Your task to perform on an android device: Open Google Chrome and click the shortcut for Amazon.com Image 0: 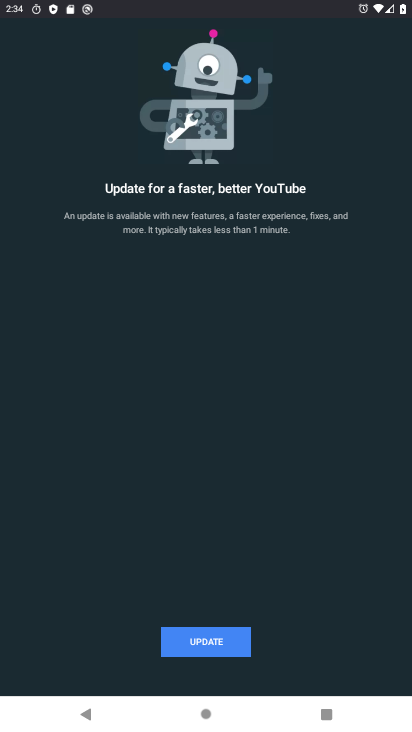
Step 0: press home button
Your task to perform on an android device: Open Google Chrome and click the shortcut for Amazon.com Image 1: 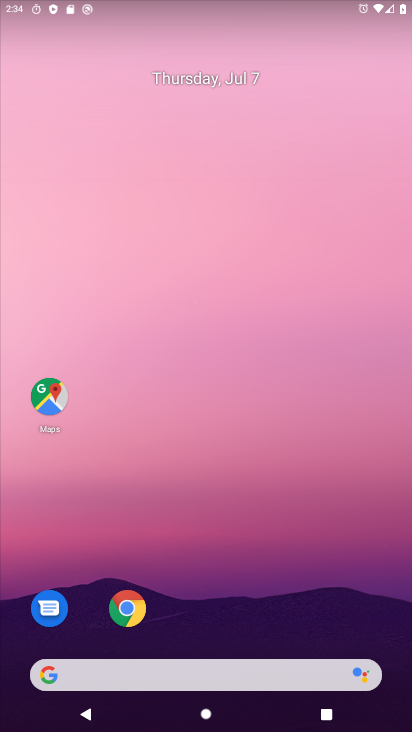
Step 1: click (128, 609)
Your task to perform on an android device: Open Google Chrome and click the shortcut for Amazon.com Image 2: 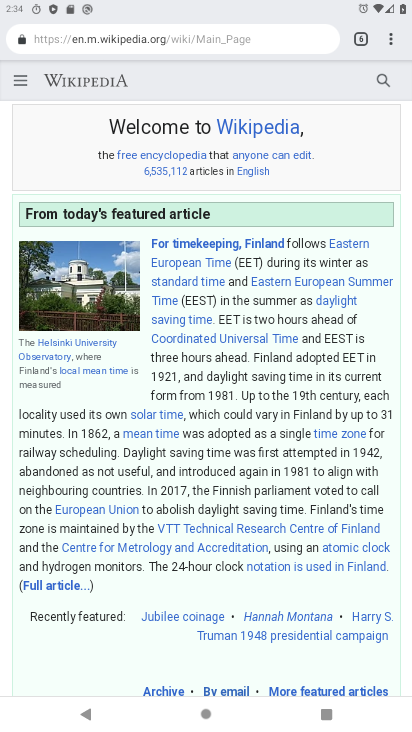
Step 2: click (389, 42)
Your task to perform on an android device: Open Google Chrome and click the shortcut for Amazon.com Image 3: 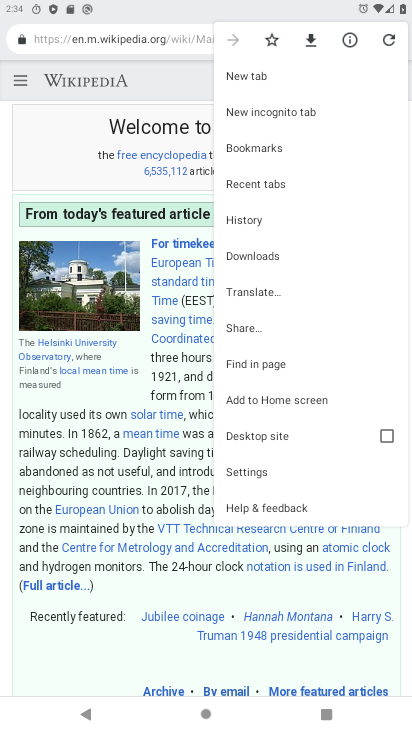
Step 3: click (239, 75)
Your task to perform on an android device: Open Google Chrome and click the shortcut for Amazon.com Image 4: 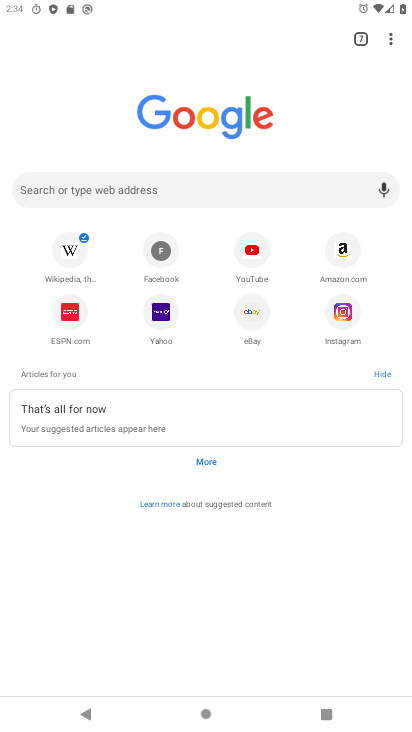
Step 4: click (343, 254)
Your task to perform on an android device: Open Google Chrome and click the shortcut for Amazon.com Image 5: 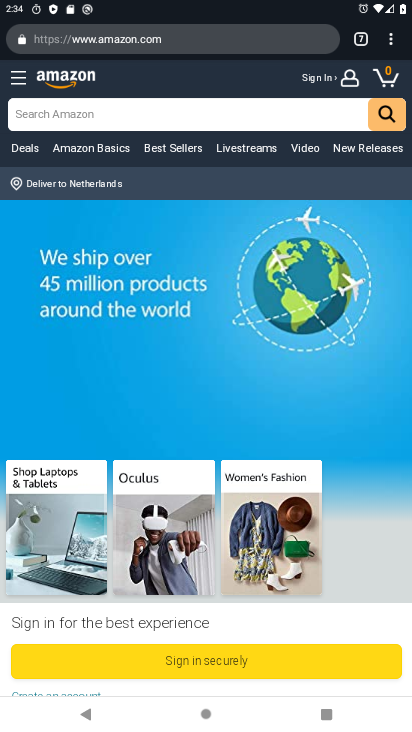
Step 5: task complete